Your task to perform on an android device: turn on airplane mode Image 0: 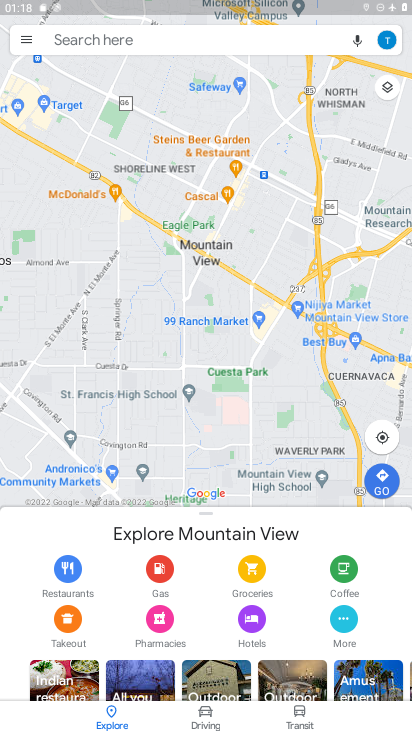
Step 0: press home button
Your task to perform on an android device: turn on airplane mode Image 1: 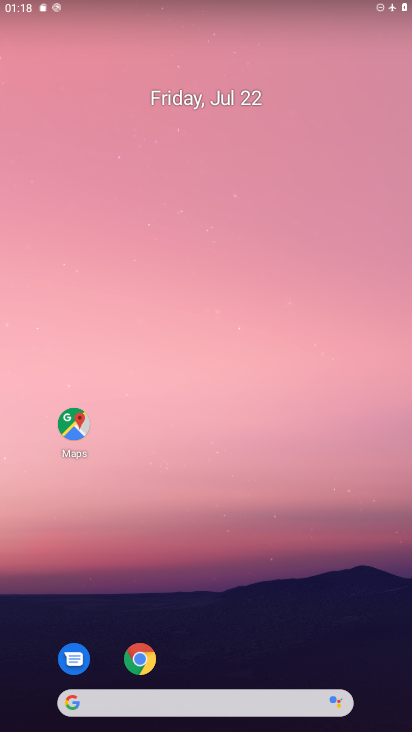
Step 1: drag from (190, 696) to (185, 208)
Your task to perform on an android device: turn on airplane mode Image 2: 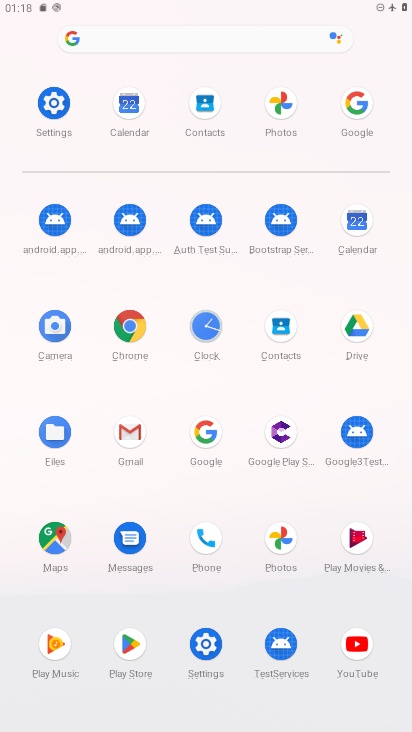
Step 2: click (51, 104)
Your task to perform on an android device: turn on airplane mode Image 3: 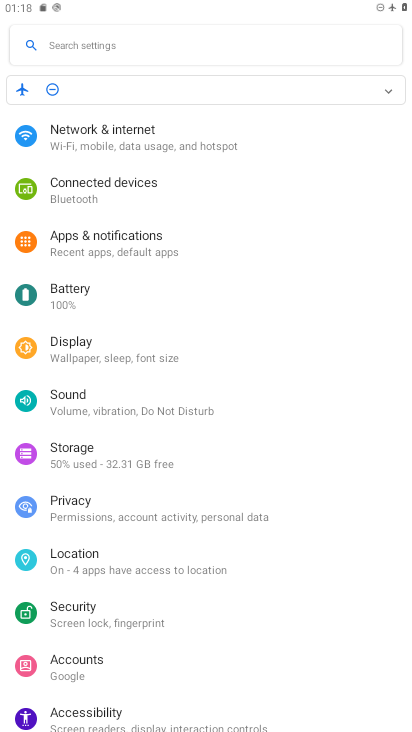
Step 3: click (123, 146)
Your task to perform on an android device: turn on airplane mode Image 4: 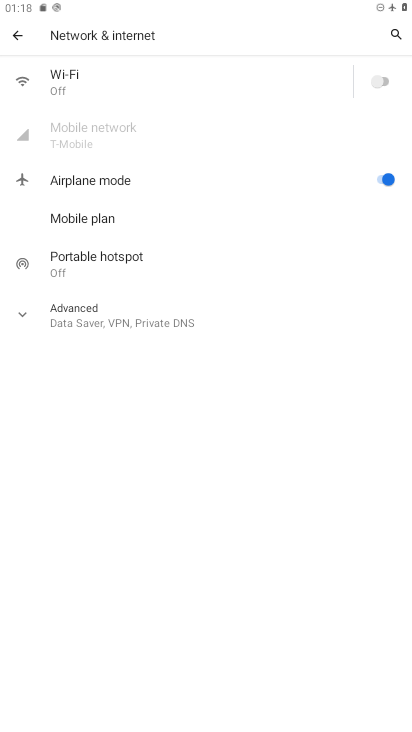
Step 4: task complete